Your task to perform on an android device: Add lg ultragear to the cart on newegg.com Image 0: 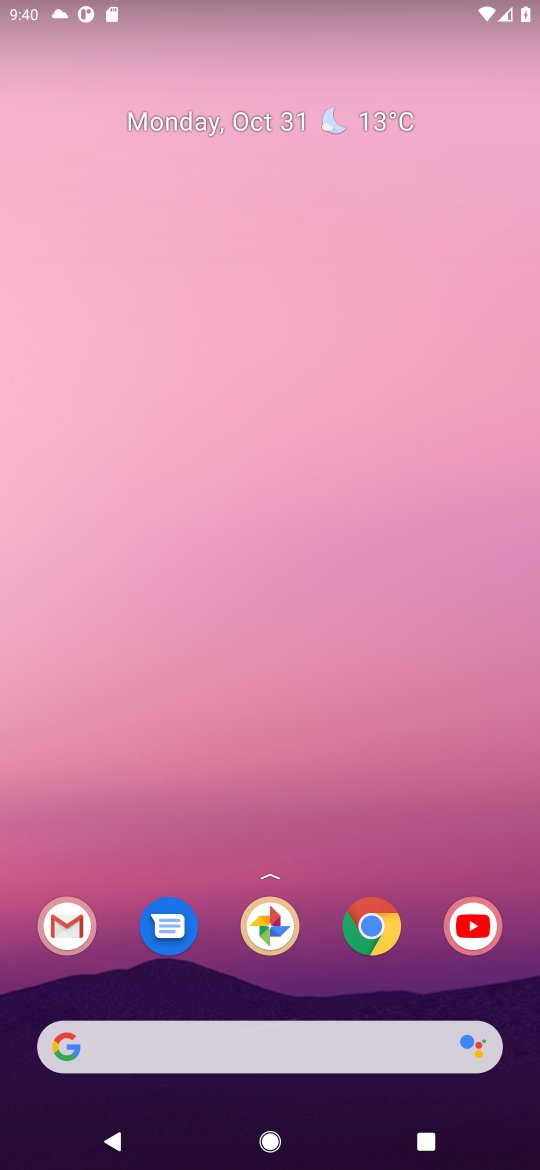
Step 0: click (348, 1043)
Your task to perform on an android device: Add lg ultragear to the cart on newegg.com Image 1: 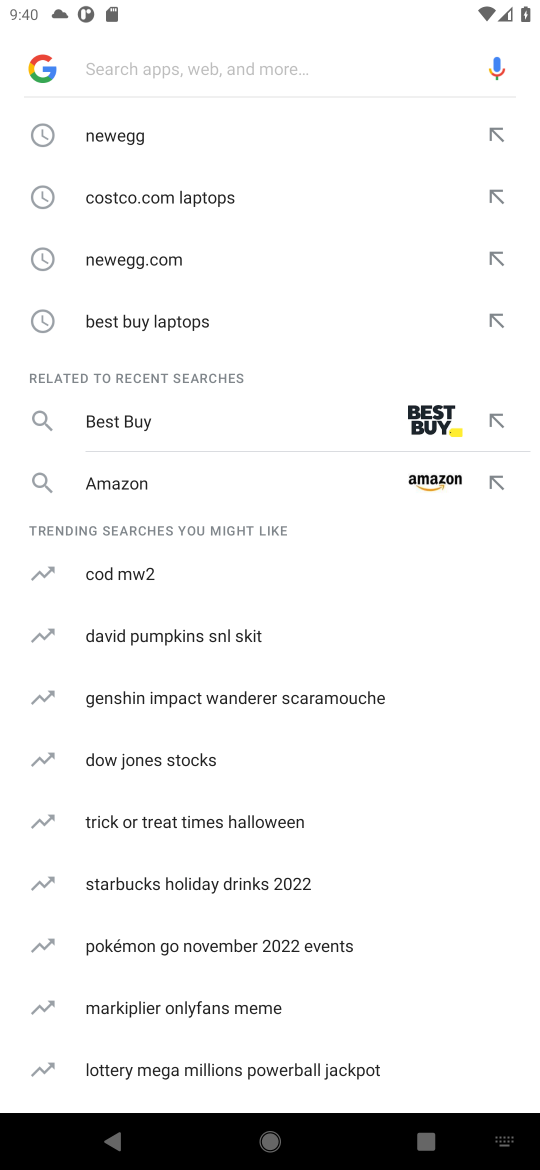
Step 1: click (126, 131)
Your task to perform on an android device: Add lg ultragear to the cart on newegg.com Image 2: 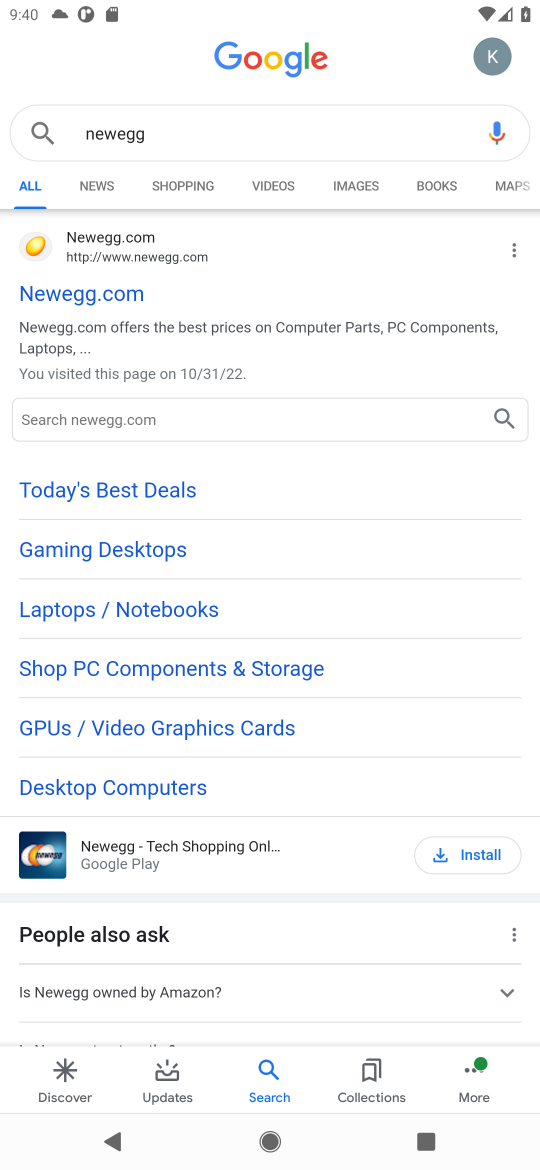
Step 2: click (76, 416)
Your task to perform on an android device: Add lg ultragear to the cart on newegg.com Image 3: 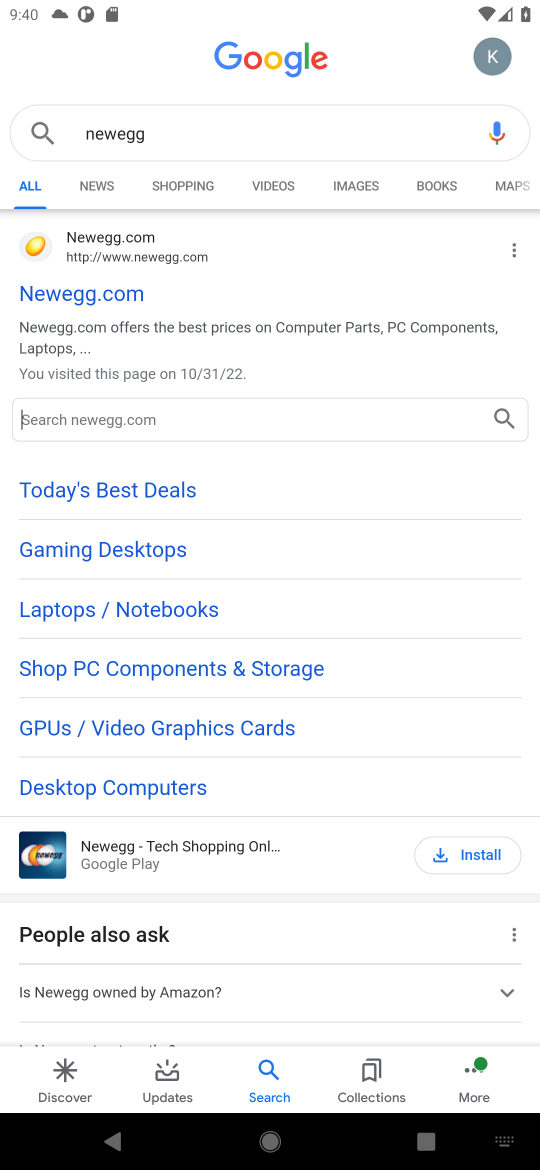
Step 3: type "lg ultragear"
Your task to perform on an android device: Add lg ultragear to the cart on newegg.com Image 4: 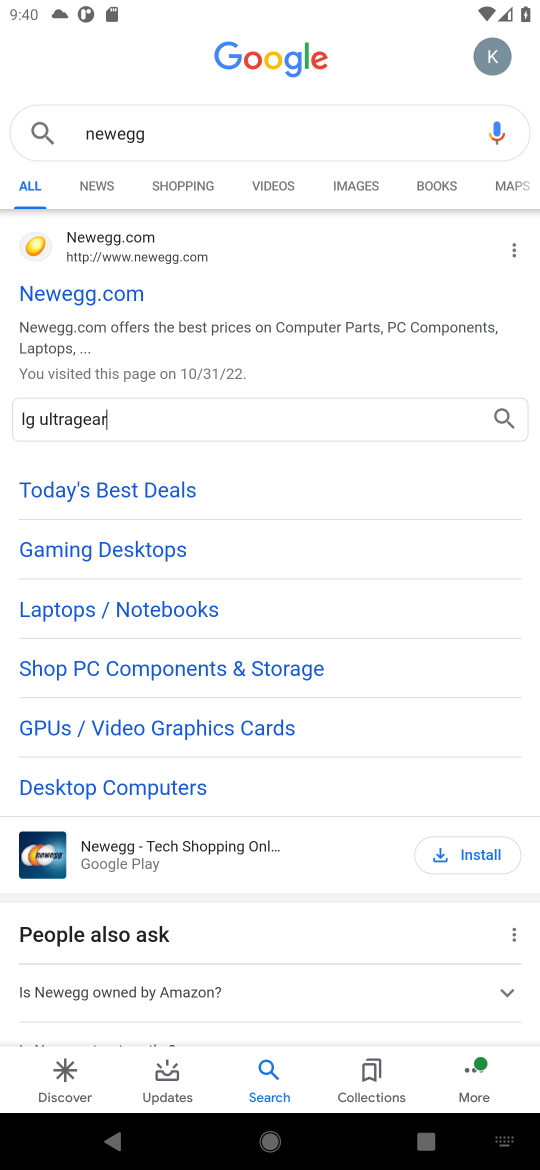
Step 4: click (502, 420)
Your task to perform on an android device: Add lg ultragear to the cart on newegg.com Image 5: 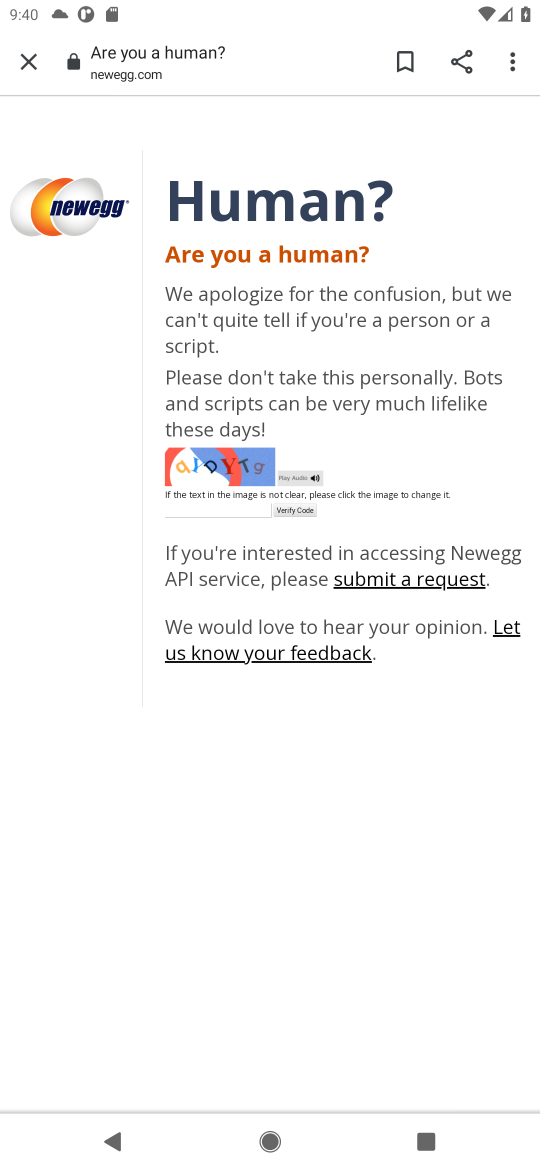
Step 5: click (236, 512)
Your task to perform on an android device: Add lg ultragear to the cart on newegg.com Image 6: 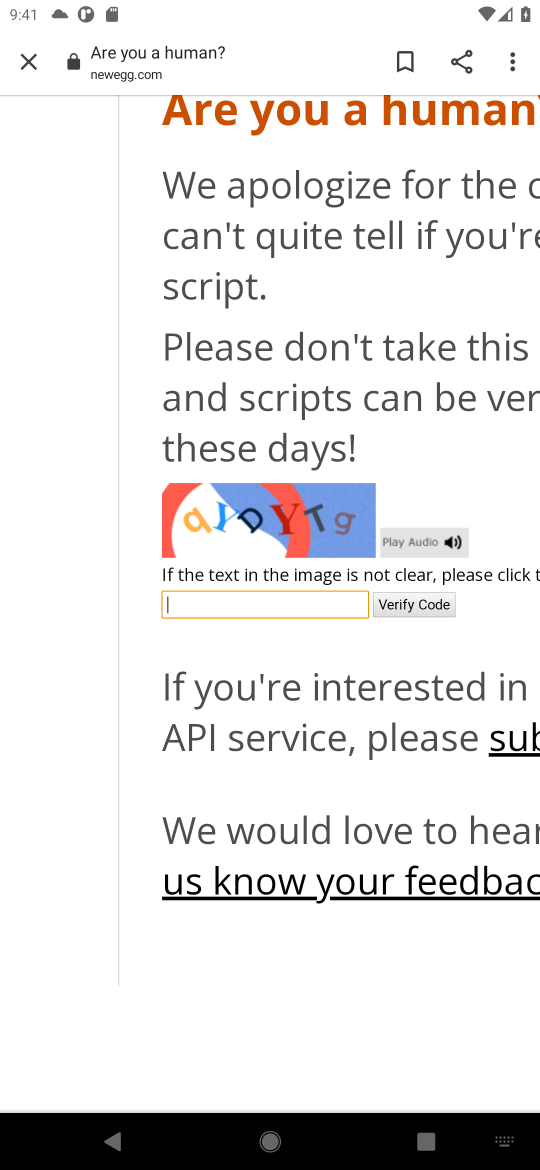
Step 6: type "qYDYTg"
Your task to perform on an android device: Add lg ultragear to the cart on newegg.com Image 7: 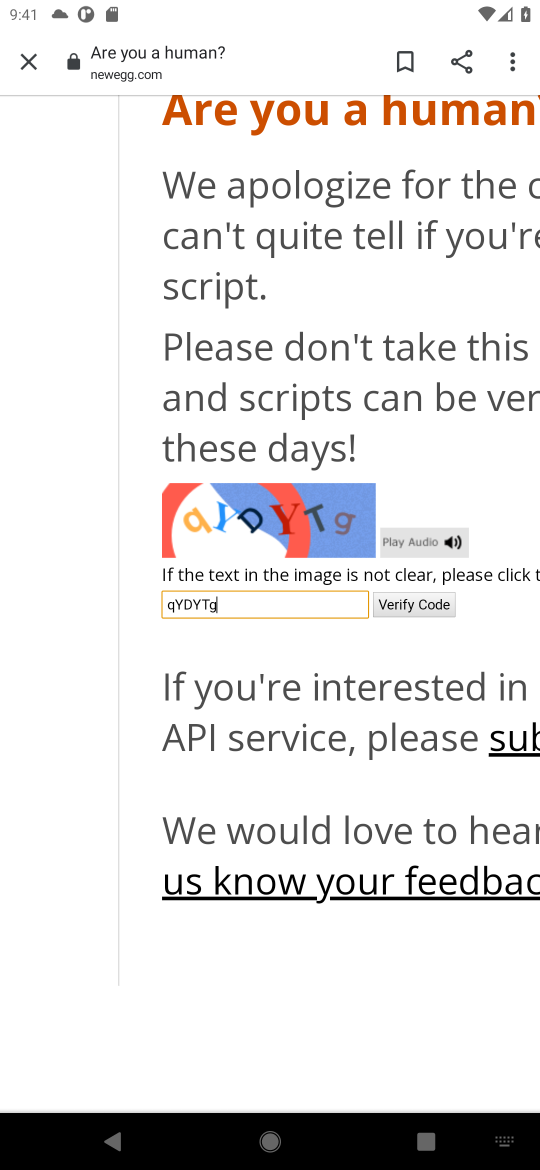
Step 7: click (430, 604)
Your task to perform on an android device: Add lg ultragear to the cart on newegg.com Image 8: 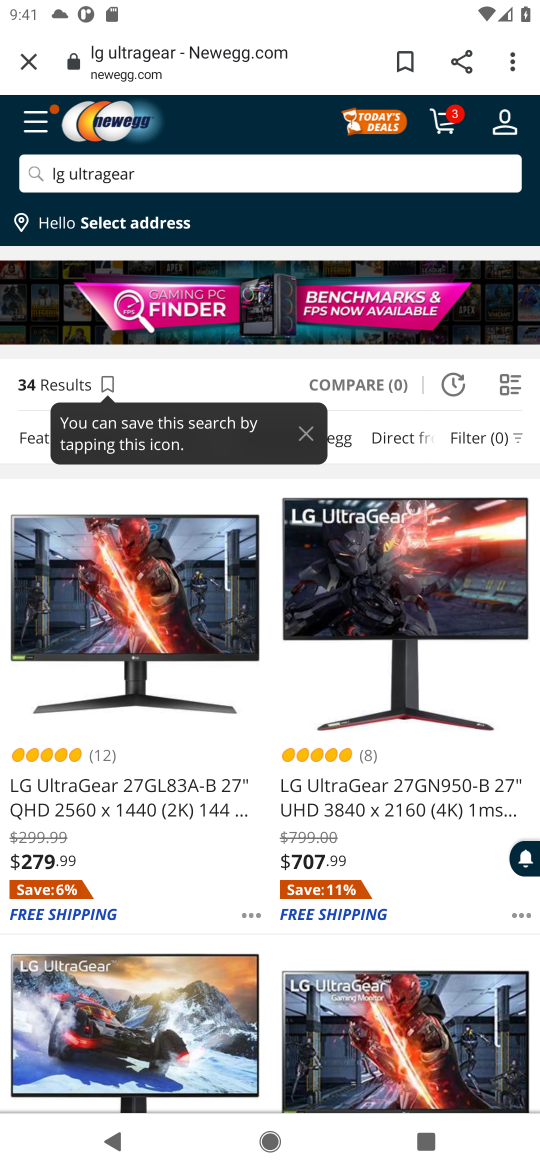
Step 8: click (48, 800)
Your task to perform on an android device: Add lg ultragear to the cart on newegg.com Image 9: 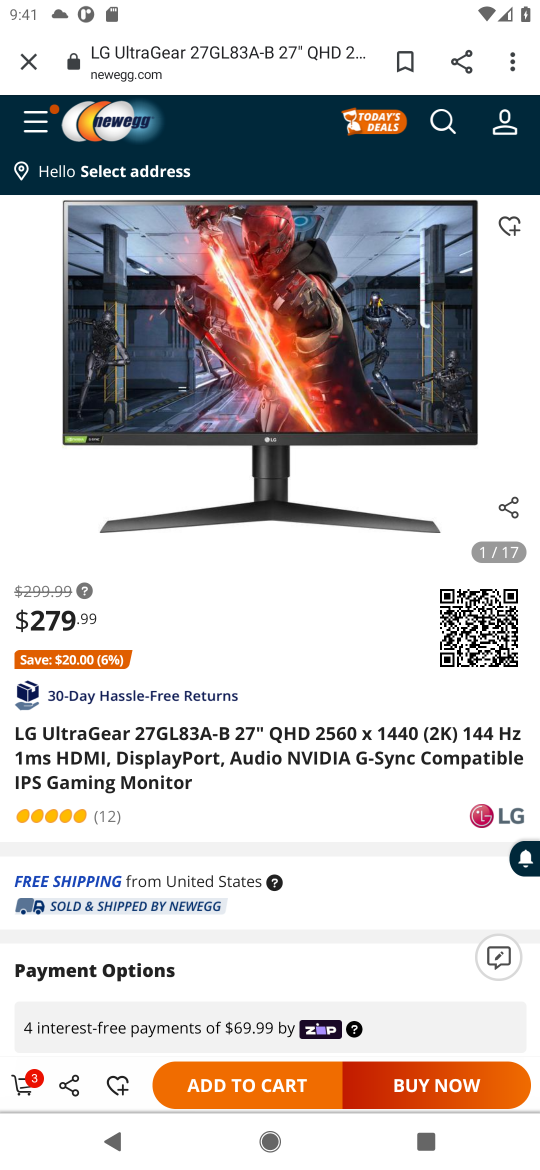
Step 9: click (278, 1092)
Your task to perform on an android device: Add lg ultragear to the cart on newegg.com Image 10: 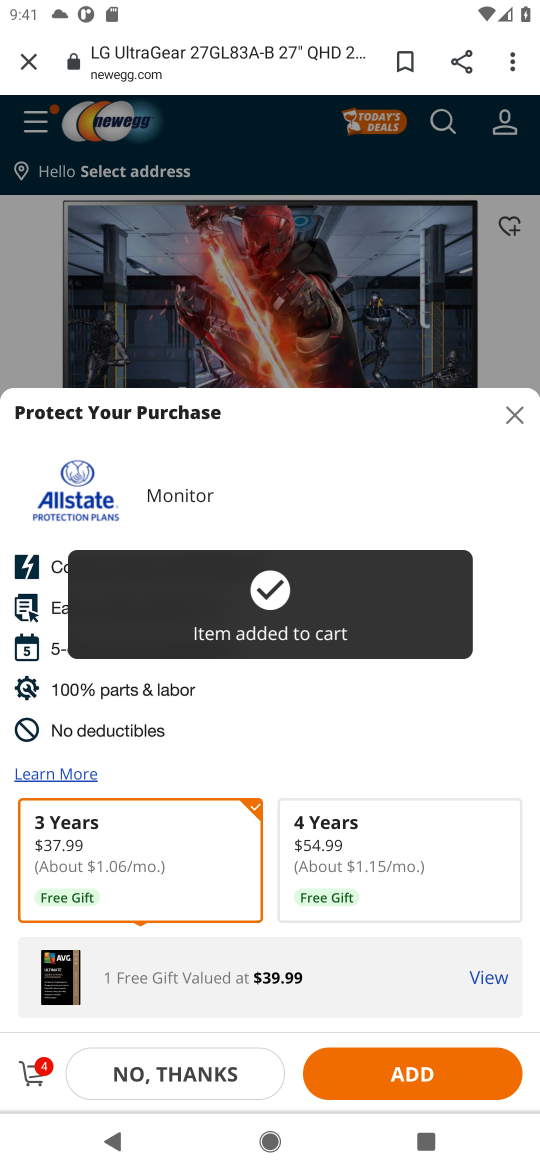
Step 10: task complete